Your task to perform on an android device: open app "Viber Messenger" Image 0: 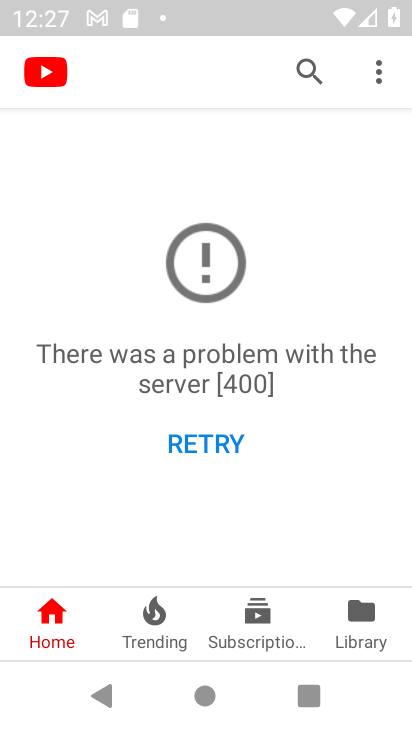
Step 0: press home button
Your task to perform on an android device: open app "Viber Messenger" Image 1: 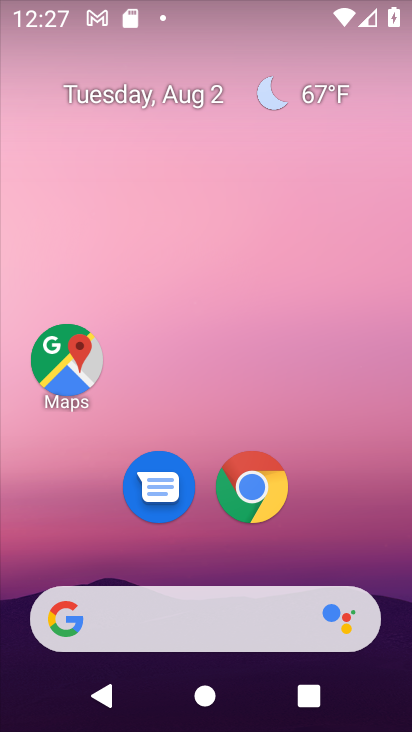
Step 1: drag from (230, 655) to (220, 126)
Your task to perform on an android device: open app "Viber Messenger" Image 2: 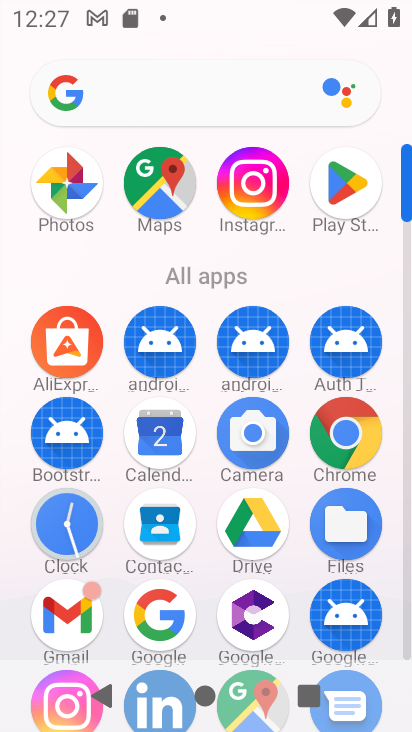
Step 2: click (337, 197)
Your task to perform on an android device: open app "Viber Messenger" Image 3: 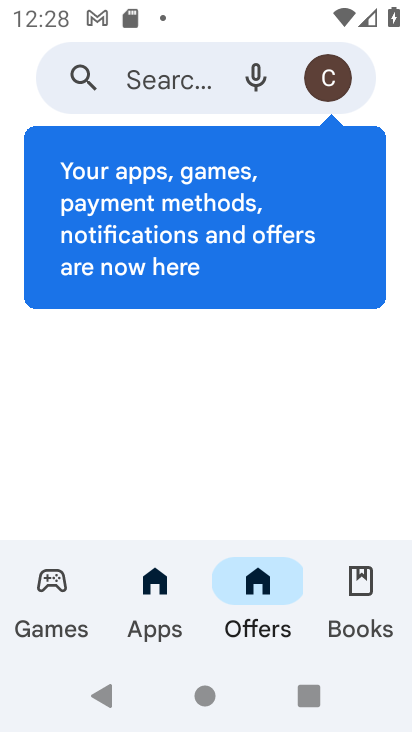
Step 3: click (171, 76)
Your task to perform on an android device: open app "Viber Messenger" Image 4: 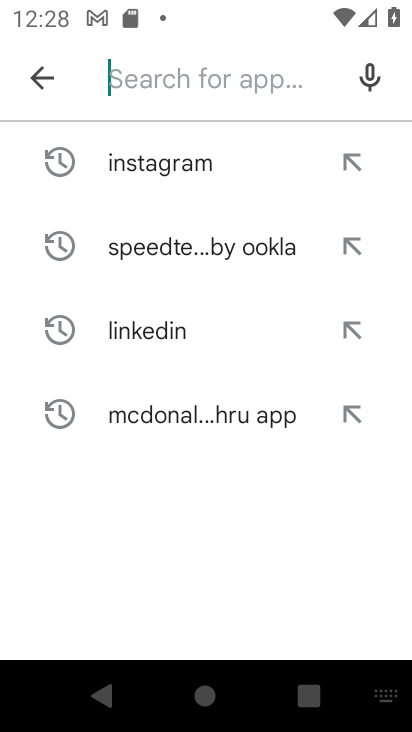
Step 4: type "Viber Messenger"
Your task to perform on an android device: open app "Viber Messenger" Image 5: 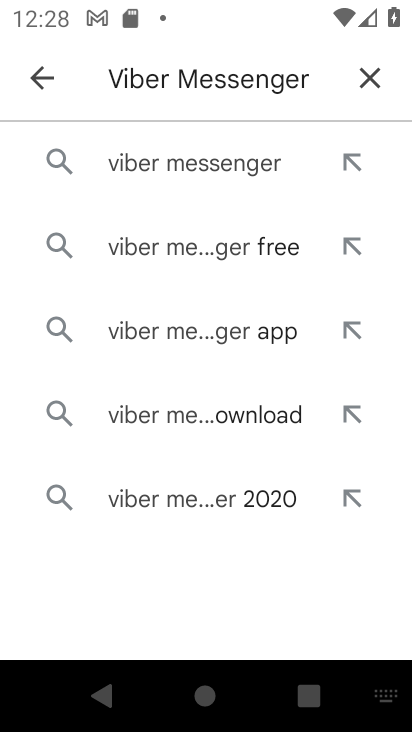
Step 5: click (204, 171)
Your task to perform on an android device: open app "Viber Messenger" Image 6: 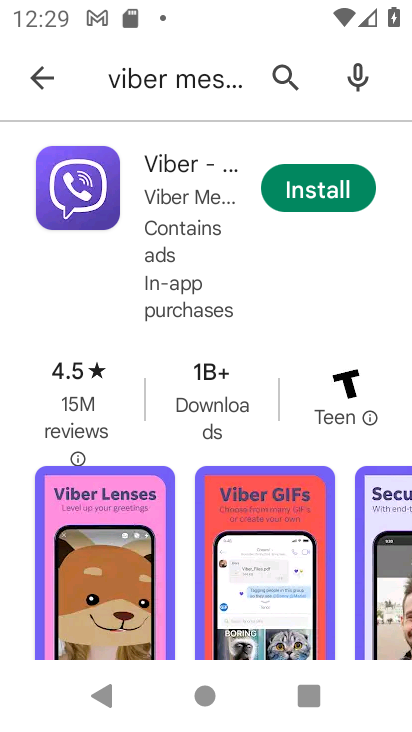
Step 6: task complete